Your task to perform on an android device: open a bookmark in the chrome app Image 0: 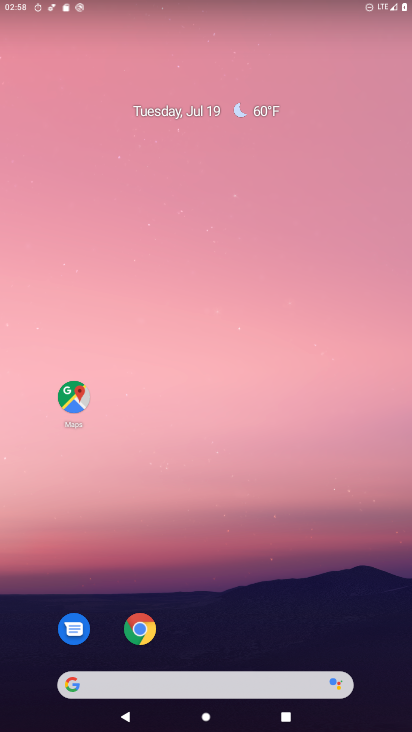
Step 0: click (148, 623)
Your task to perform on an android device: open a bookmark in the chrome app Image 1: 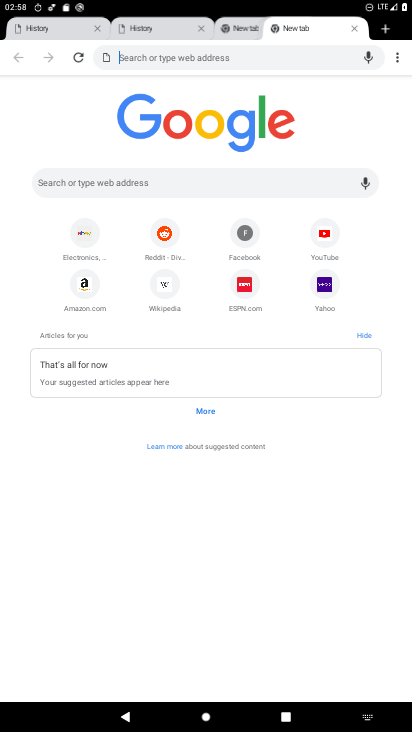
Step 1: click (387, 58)
Your task to perform on an android device: open a bookmark in the chrome app Image 2: 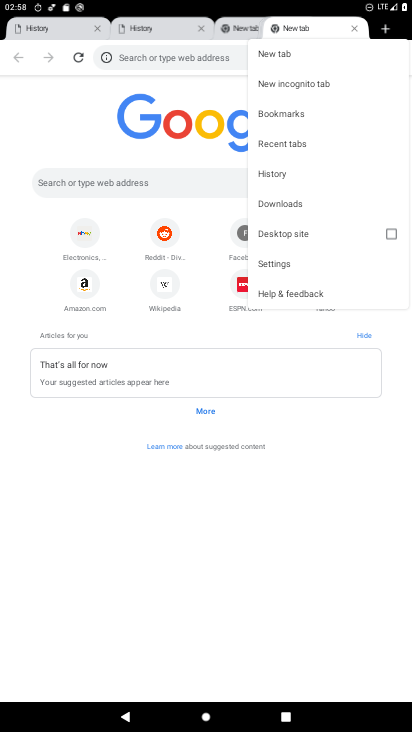
Step 2: click (321, 108)
Your task to perform on an android device: open a bookmark in the chrome app Image 3: 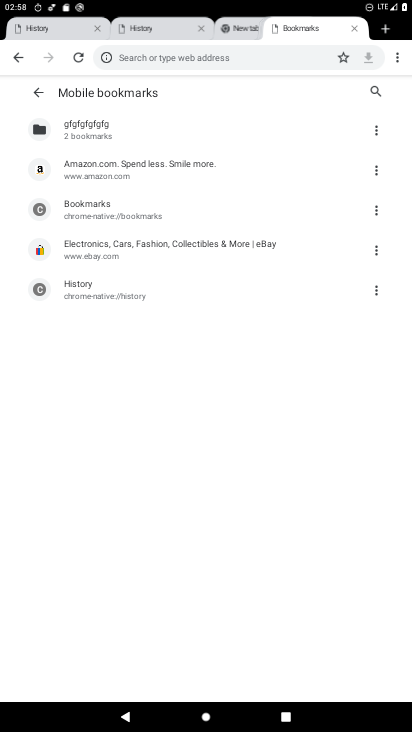
Step 3: click (107, 251)
Your task to perform on an android device: open a bookmark in the chrome app Image 4: 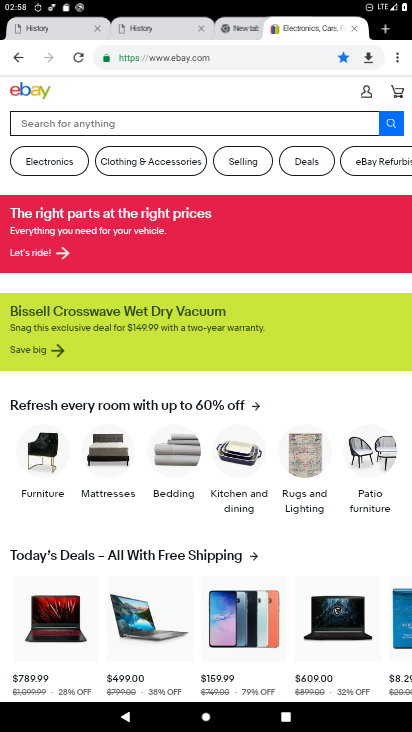
Step 4: task complete